Your task to perform on an android device: Open maps Image 0: 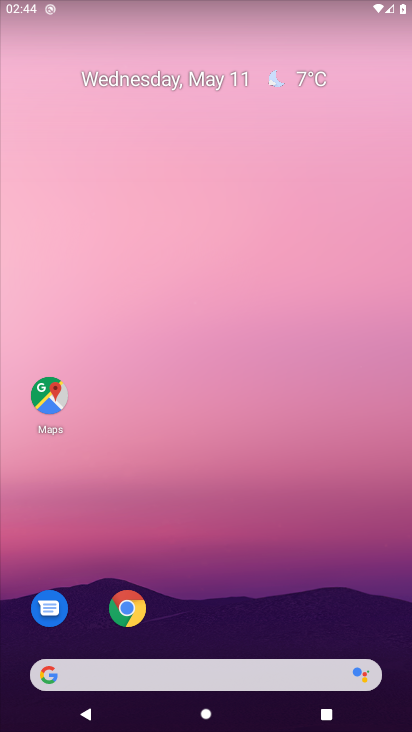
Step 0: press home button
Your task to perform on an android device: Open maps Image 1: 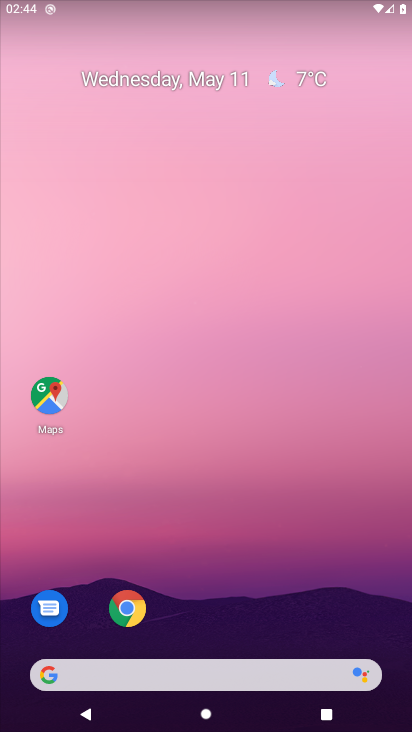
Step 1: click (38, 402)
Your task to perform on an android device: Open maps Image 2: 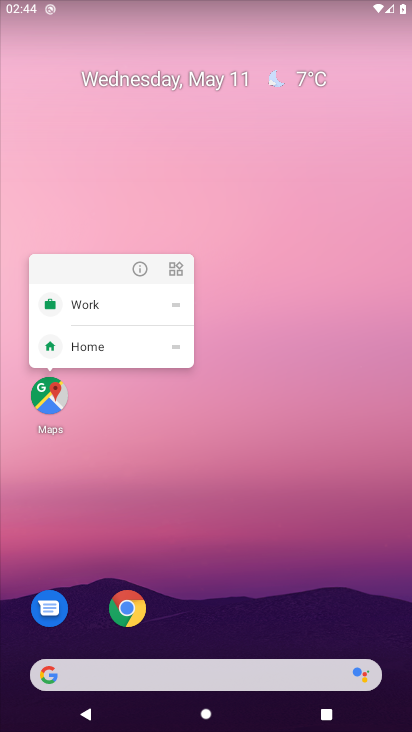
Step 2: click (45, 390)
Your task to perform on an android device: Open maps Image 3: 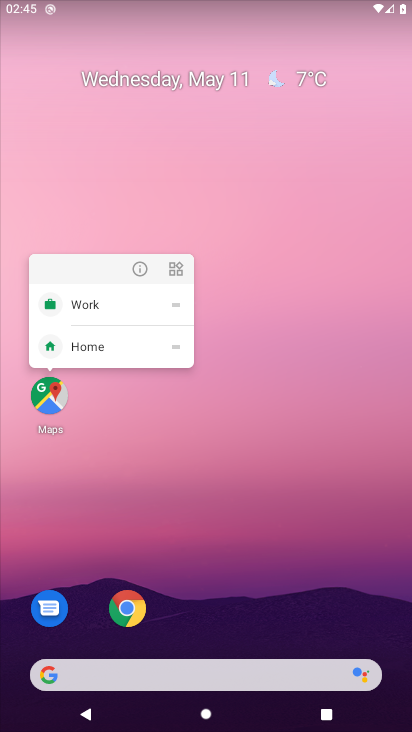
Step 3: click (51, 391)
Your task to perform on an android device: Open maps Image 4: 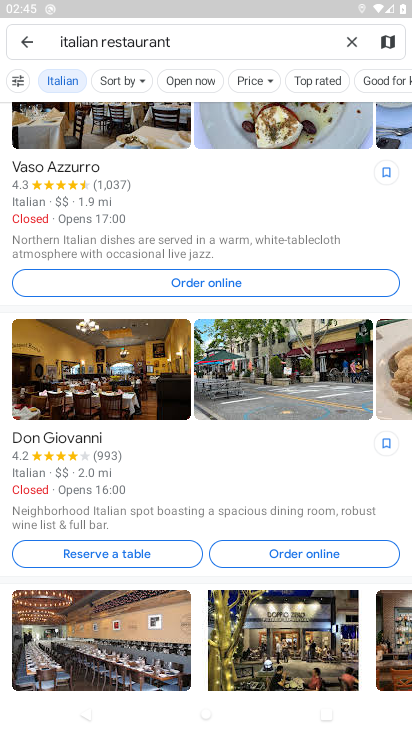
Step 4: click (22, 44)
Your task to perform on an android device: Open maps Image 5: 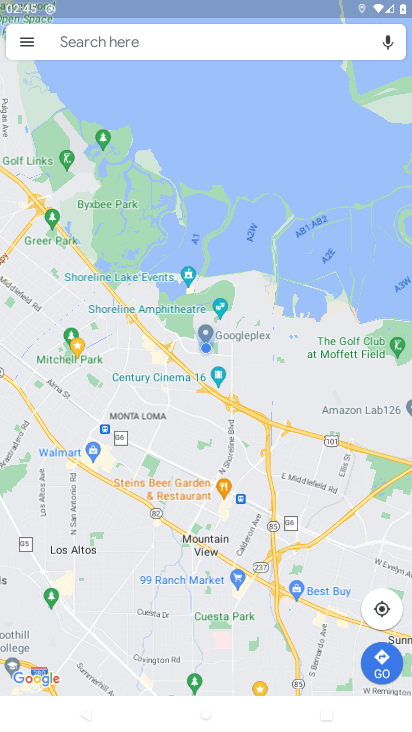
Step 5: task complete